Your task to perform on an android device: turn off priority inbox in the gmail app Image 0: 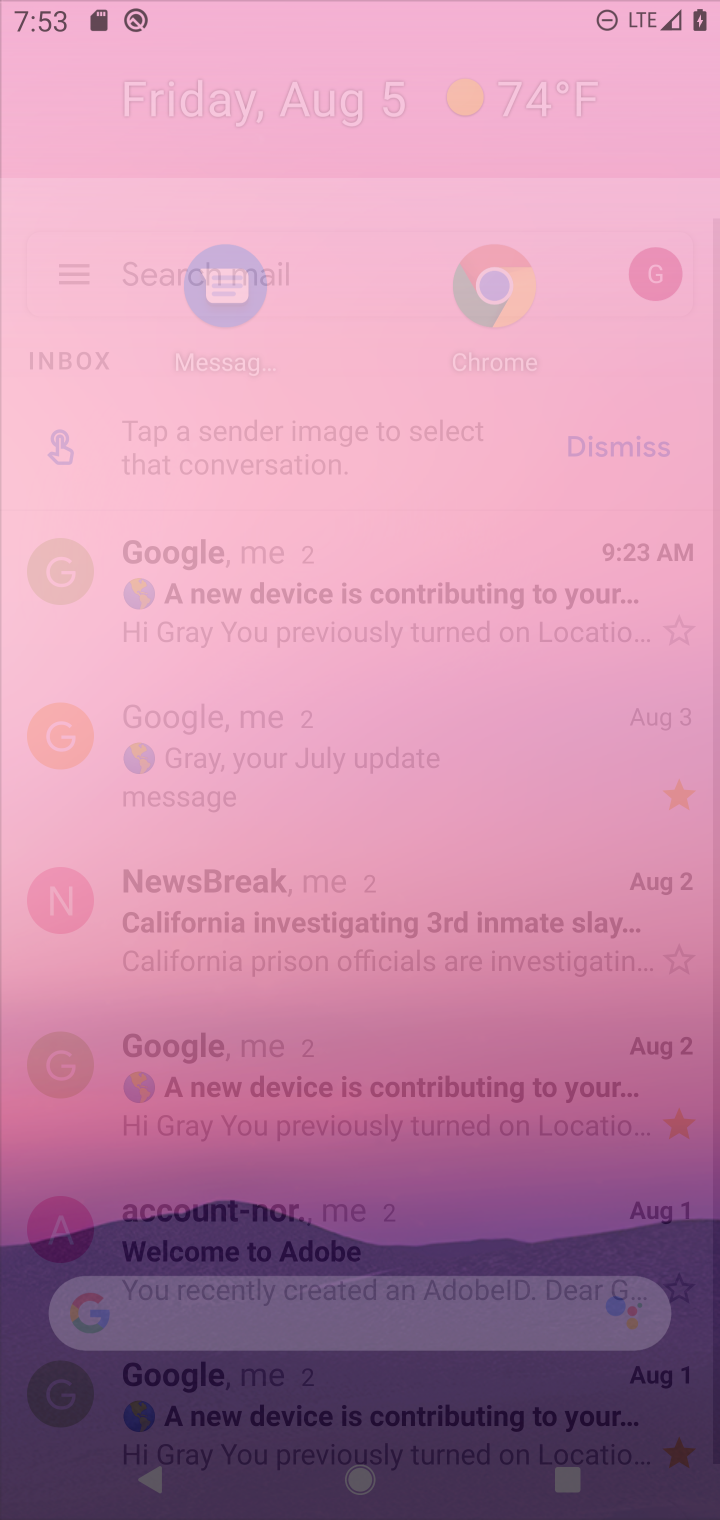
Step 0: press home button
Your task to perform on an android device: turn off priority inbox in the gmail app Image 1: 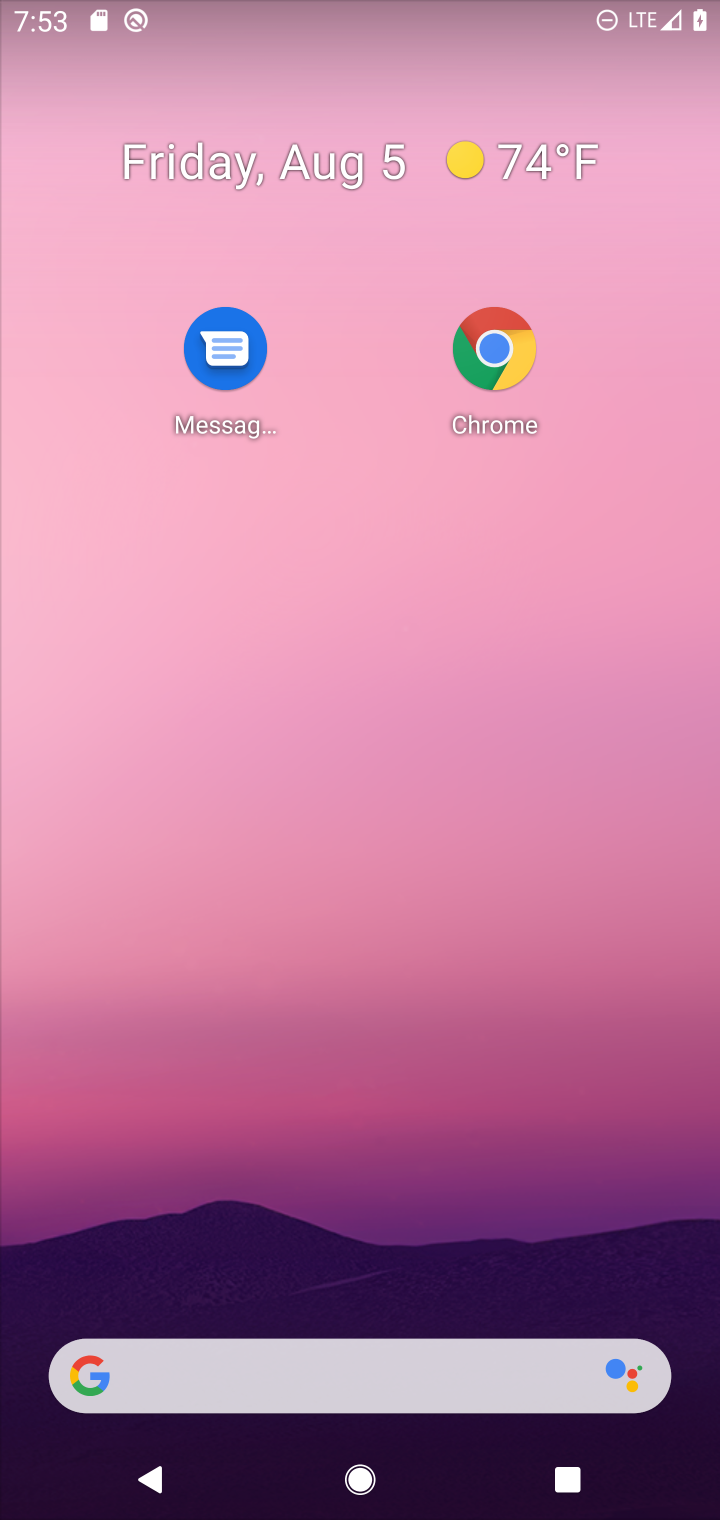
Step 1: drag from (465, 1431) to (544, 559)
Your task to perform on an android device: turn off priority inbox in the gmail app Image 2: 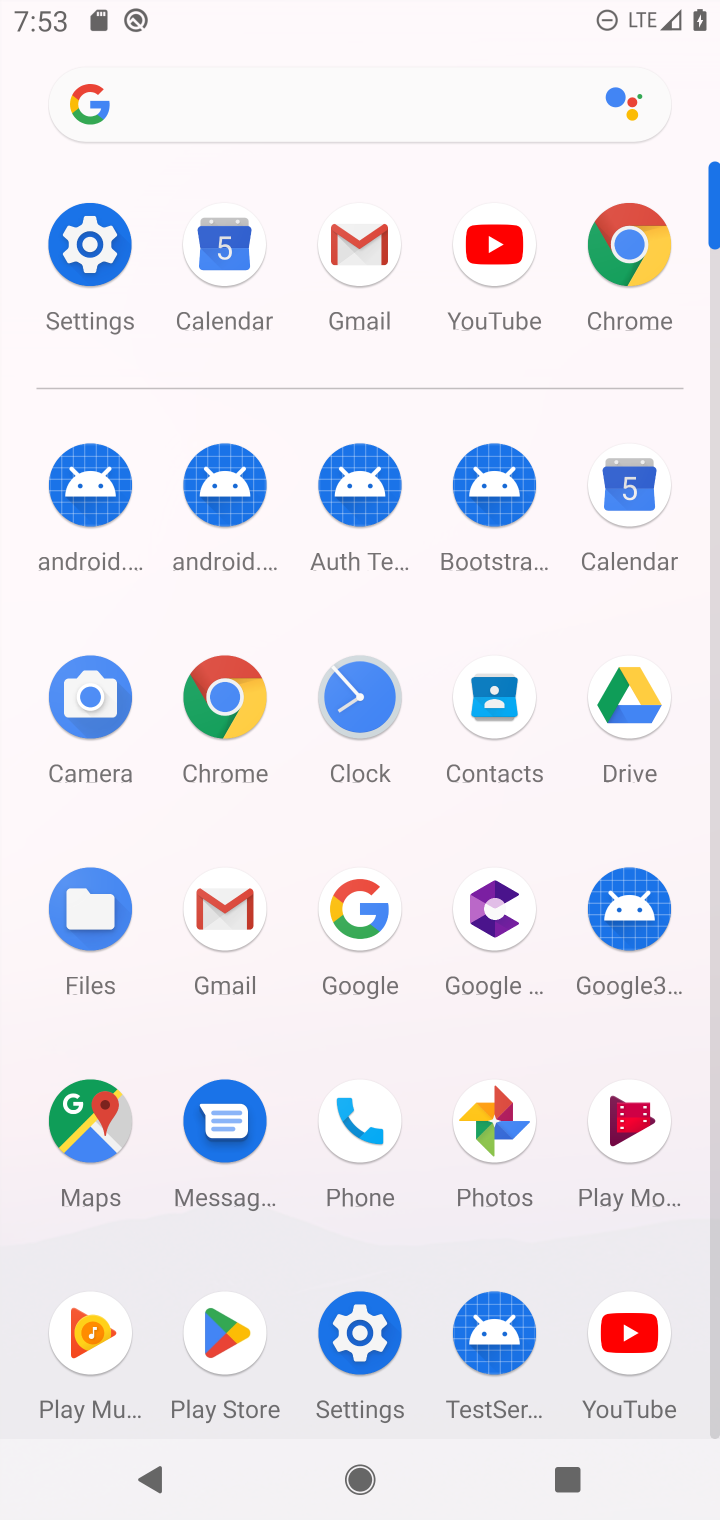
Step 2: click (382, 215)
Your task to perform on an android device: turn off priority inbox in the gmail app Image 3: 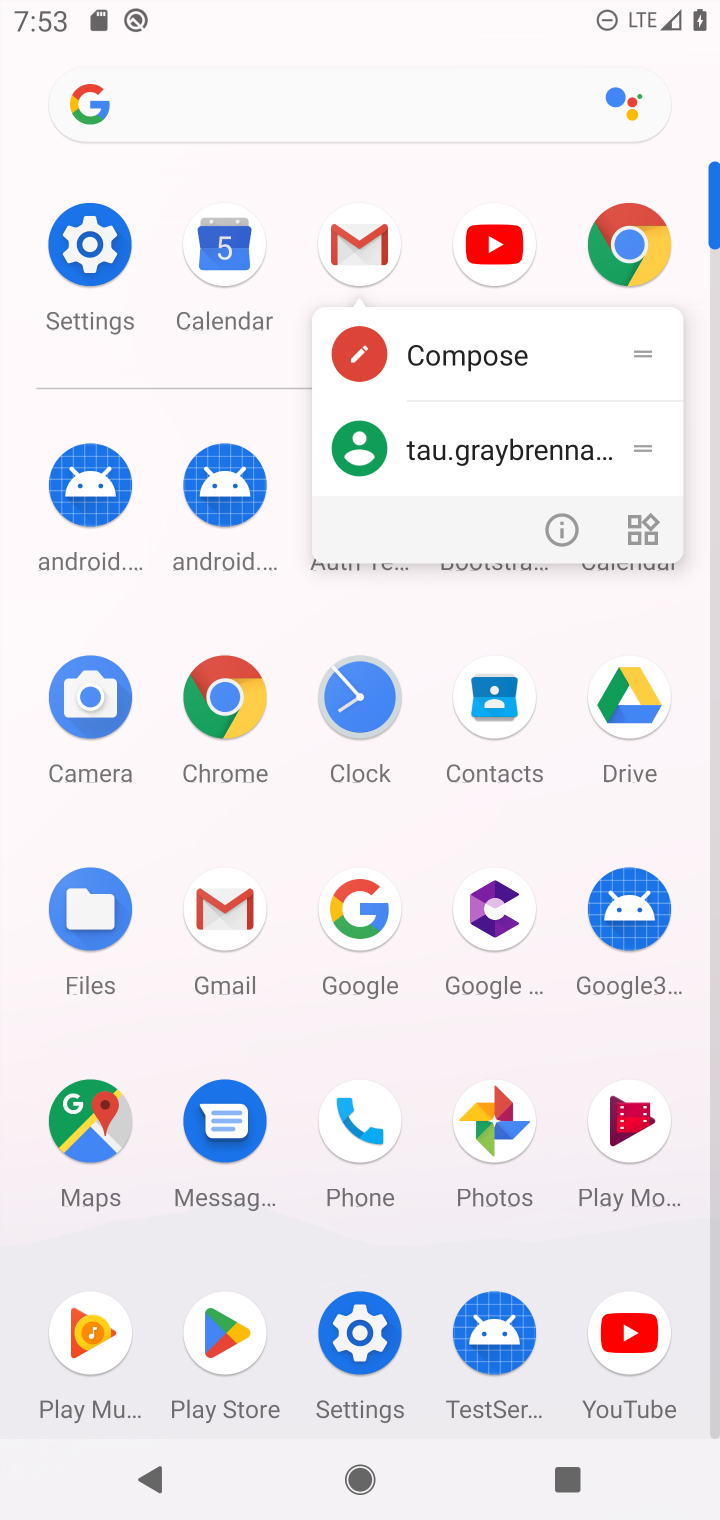
Step 3: click (355, 248)
Your task to perform on an android device: turn off priority inbox in the gmail app Image 4: 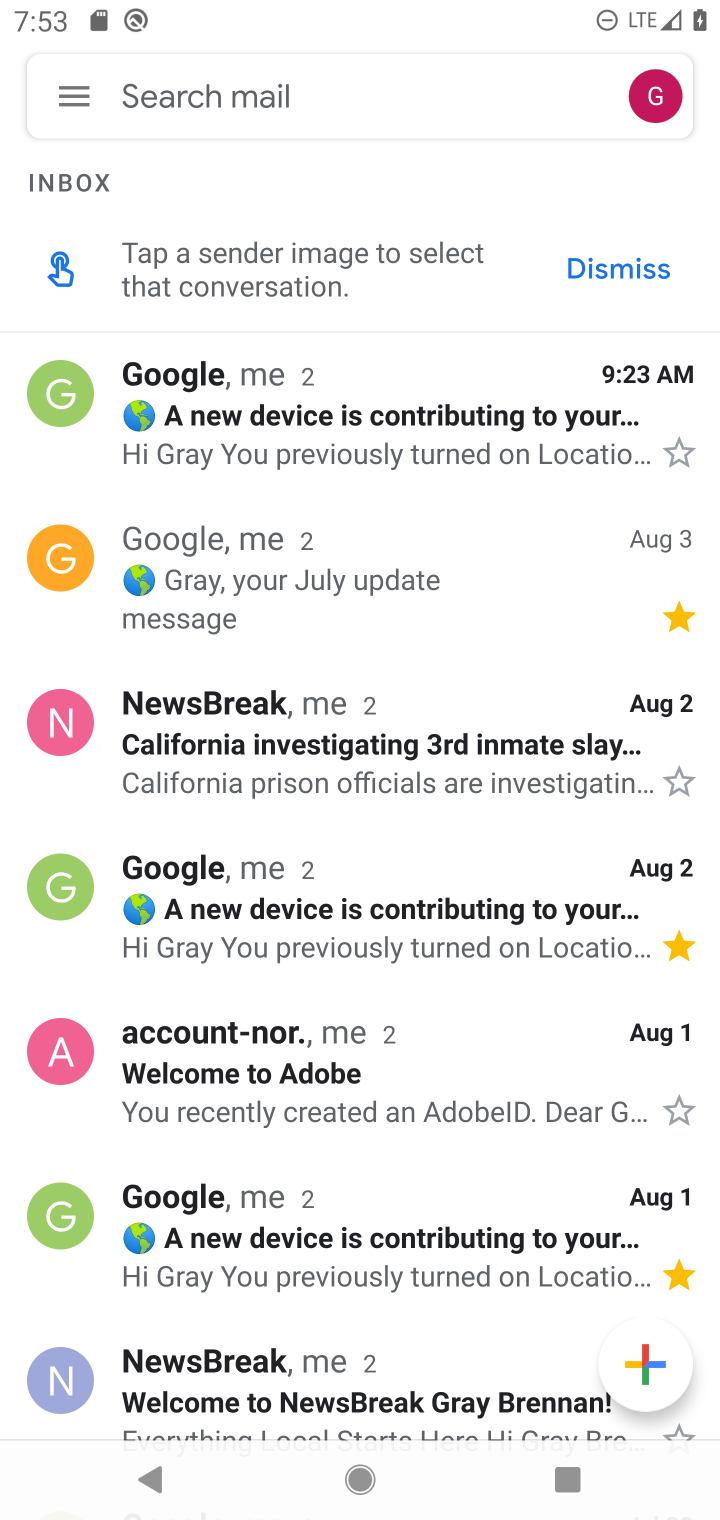
Step 4: click (81, 106)
Your task to perform on an android device: turn off priority inbox in the gmail app Image 5: 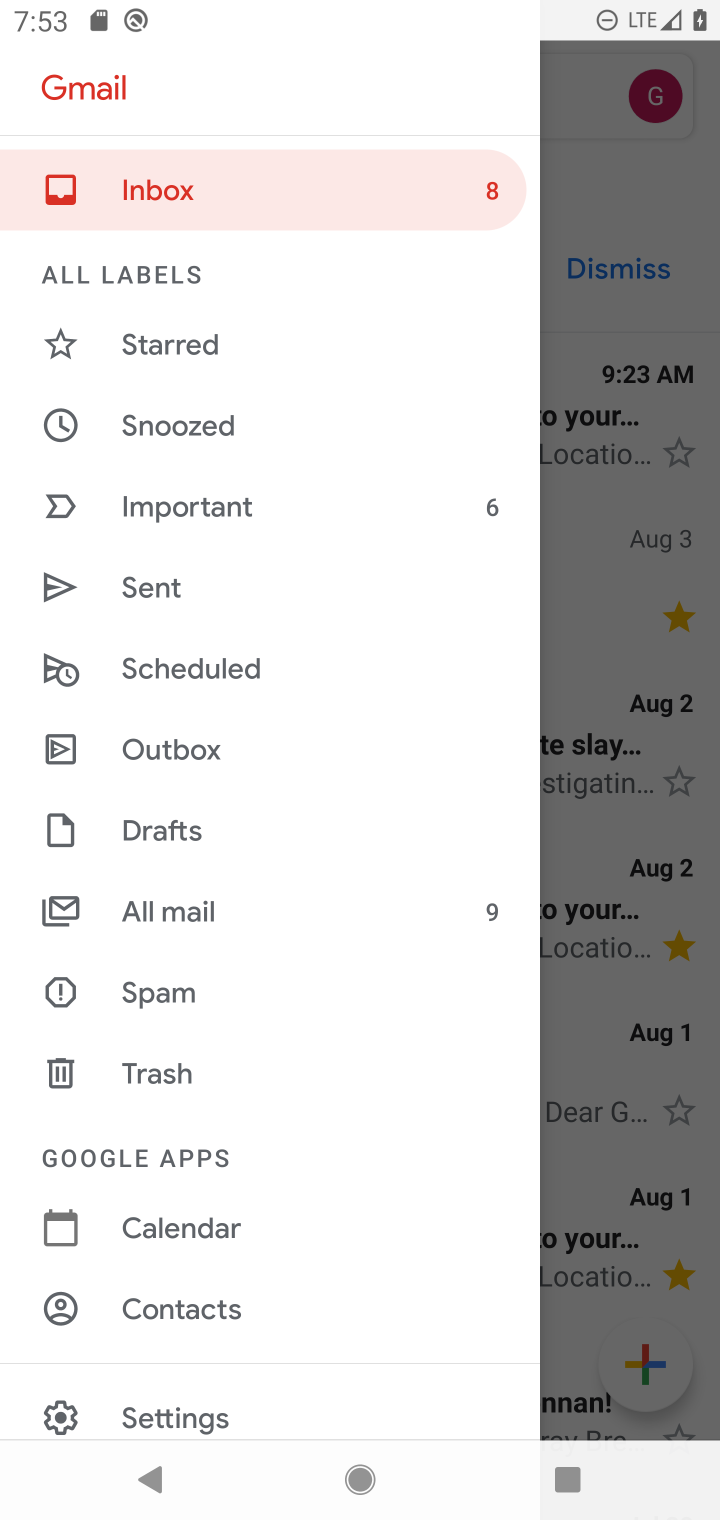
Step 5: click (168, 1415)
Your task to perform on an android device: turn off priority inbox in the gmail app Image 6: 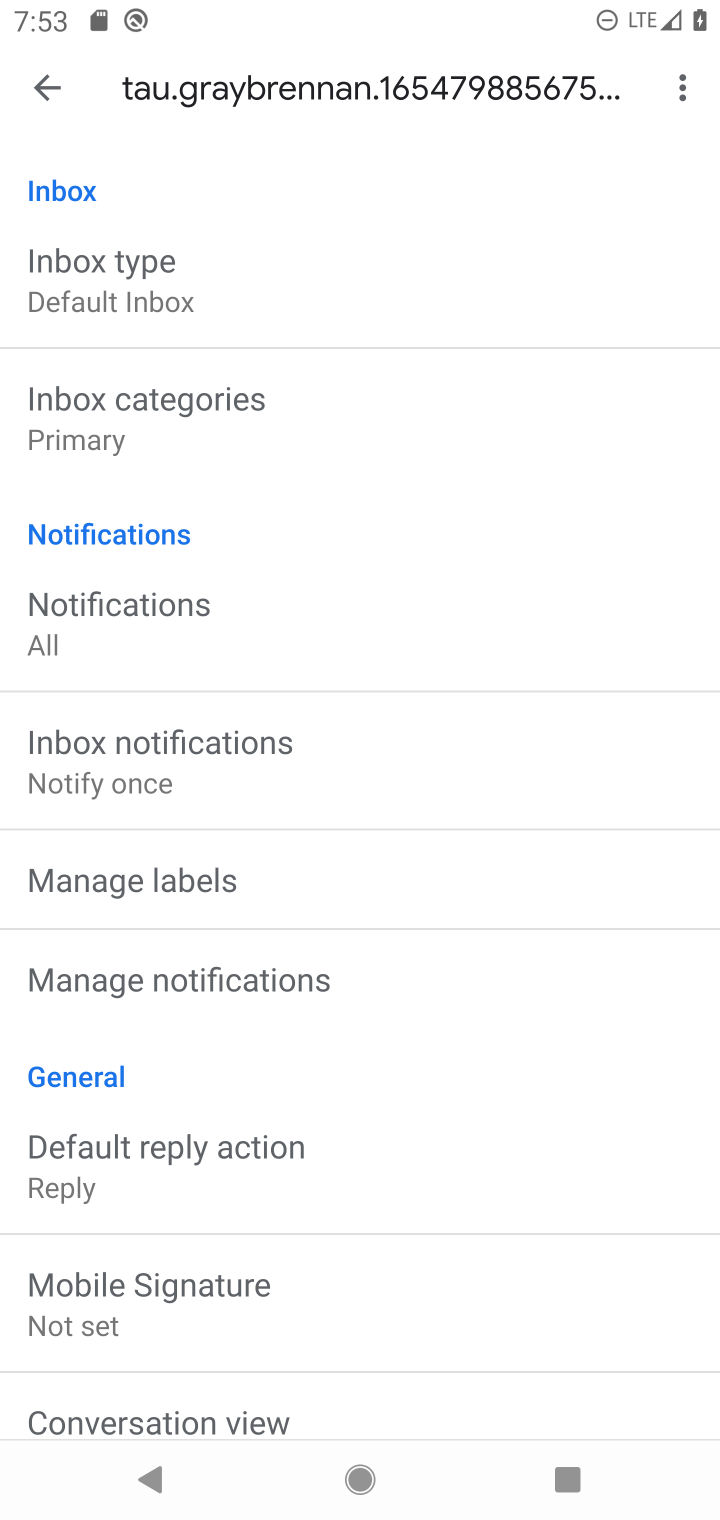
Step 6: click (184, 284)
Your task to perform on an android device: turn off priority inbox in the gmail app Image 7: 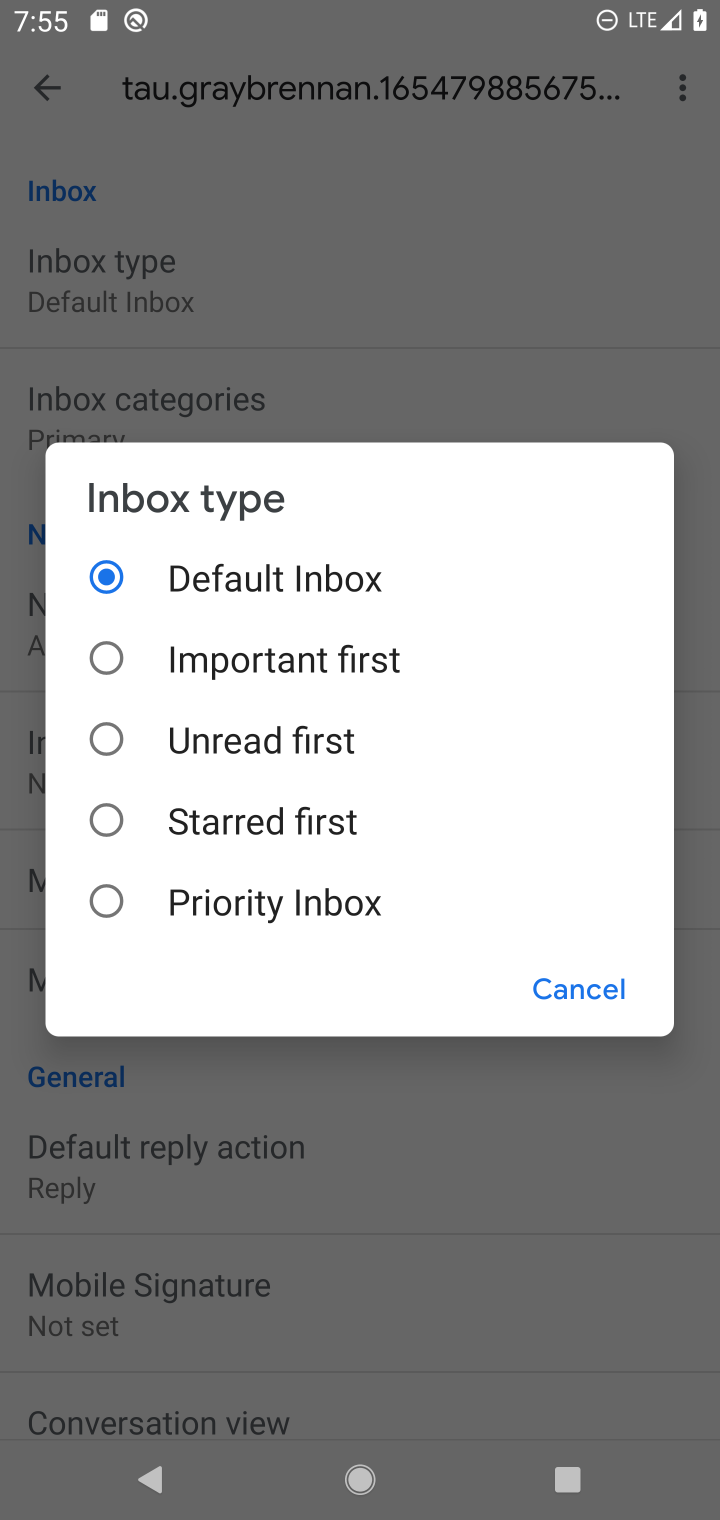
Step 7: task complete